Your task to perform on an android device: toggle priority inbox in the gmail app Image 0: 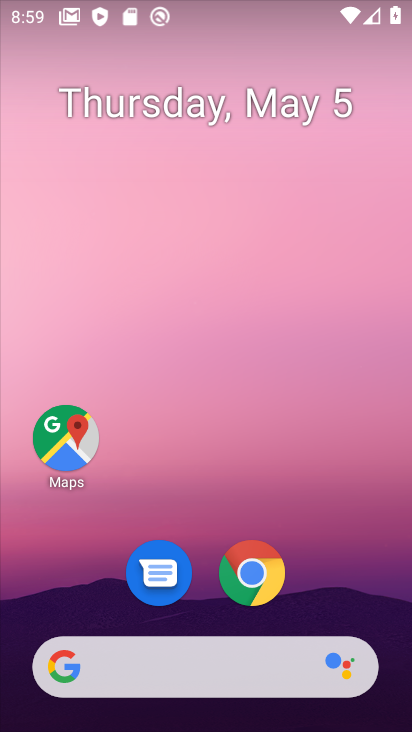
Step 0: drag from (199, 628) to (218, 1)
Your task to perform on an android device: toggle priority inbox in the gmail app Image 1: 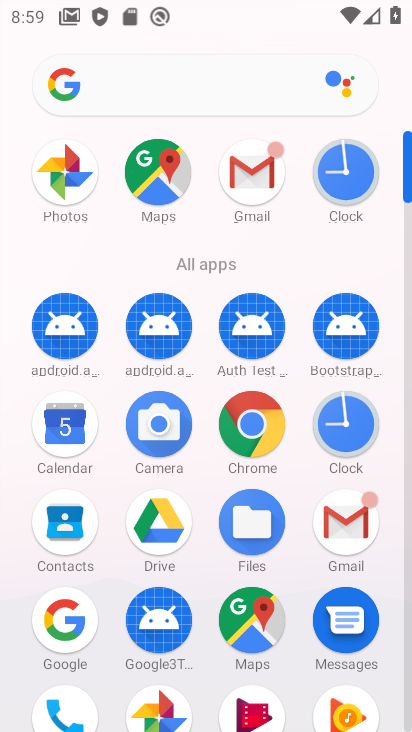
Step 1: click (251, 165)
Your task to perform on an android device: toggle priority inbox in the gmail app Image 2: 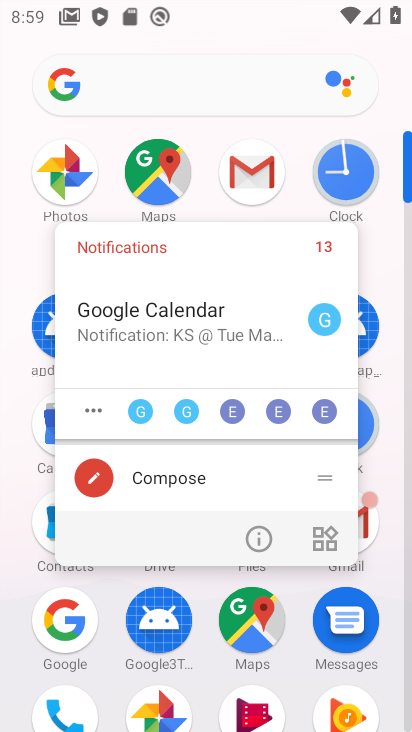
Step 2: click (254, 182)
Your task to perform on an android device: toggle priority inbox in the gmail app Image 3: 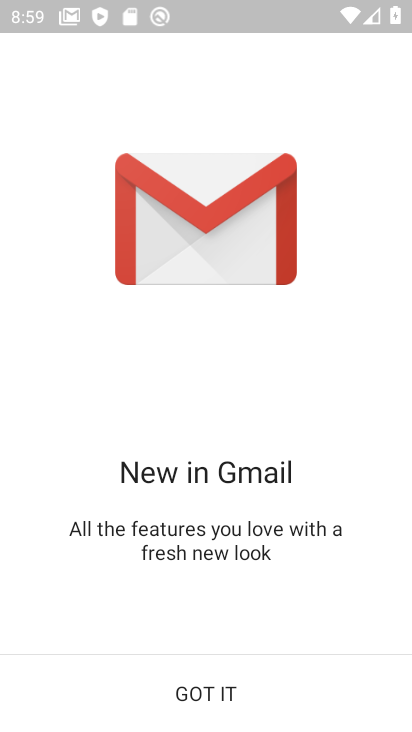
Step 3: click (194, 705)
Your task to perform on an android device: toggle priority inbox in the gmail app Image 4: 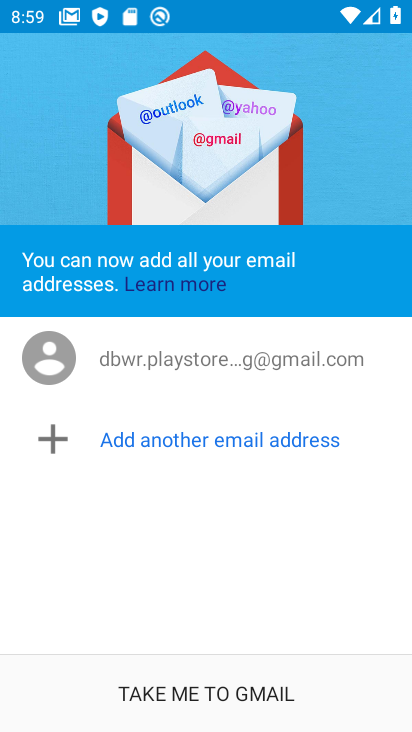
Step 4: click (192, 721)
Your task to perform on an android device: toggle priority inbox in the gmail app Image 5: 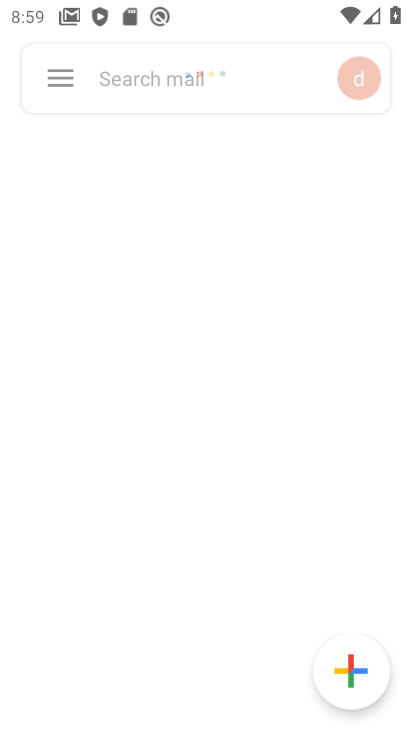
Step 5: click (59, 74)
Your task to perform on an android device: toggle priority inbox in the gmail app Image 6: 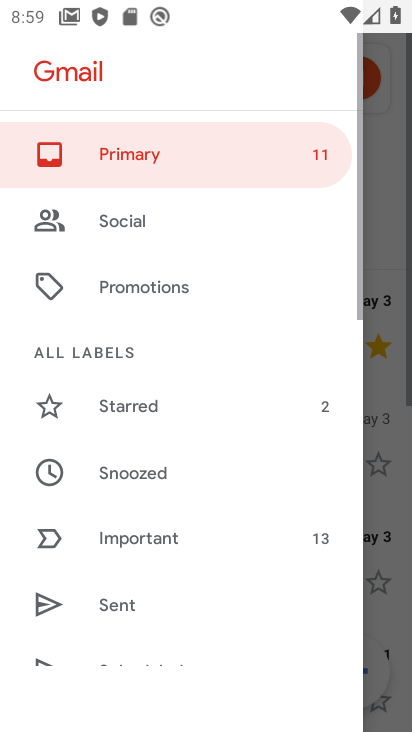
Step 6: drag from (123, 656) to (221, 104)
Your task to perform on an android device: toggle priority inbox in the gmail app Image 7: 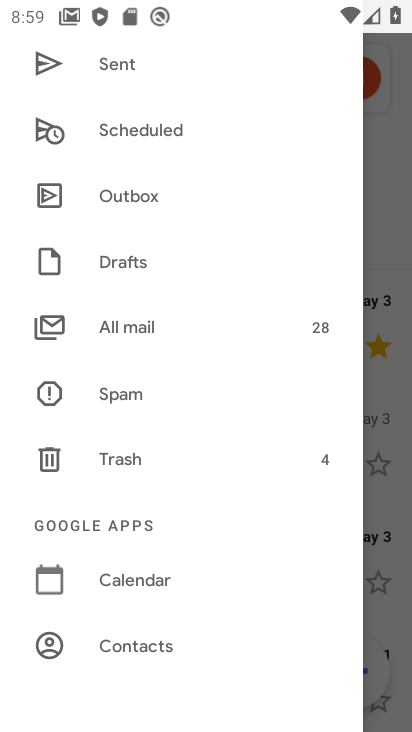
Step 7: drag from (138, 604) to (301, 22)
Your task to perform on an android device: toggle priority inbox in the gmail app Image 8: 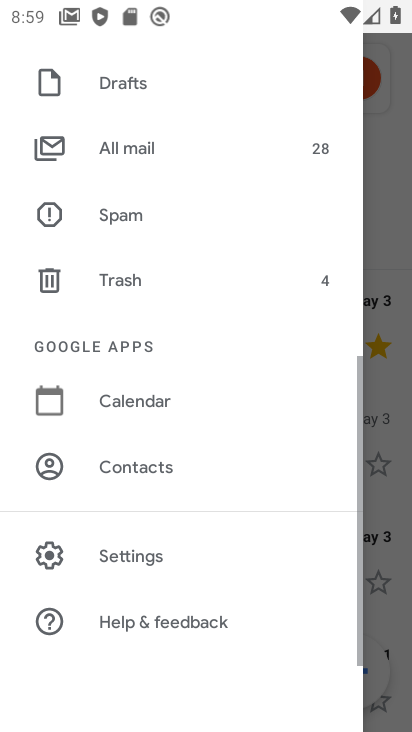
Step 8: click (145, 556)
Your task to perform on an android device: toggle priority inbox in the gmail app Image 9: 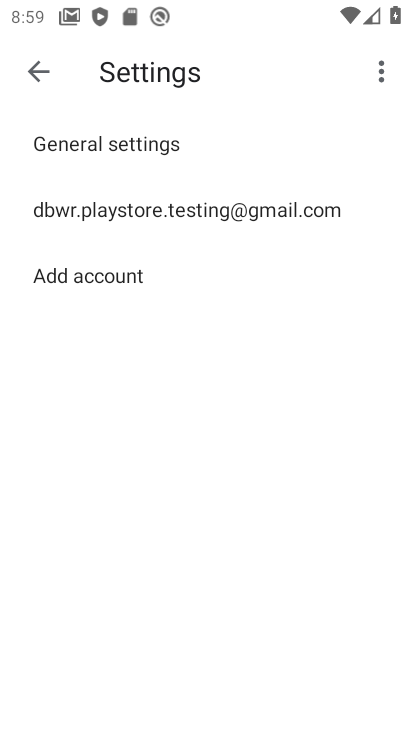
Step 9: click (147, 214)
Your task to perform on an android device: toggle priority inbox in the gmail app Image 10: 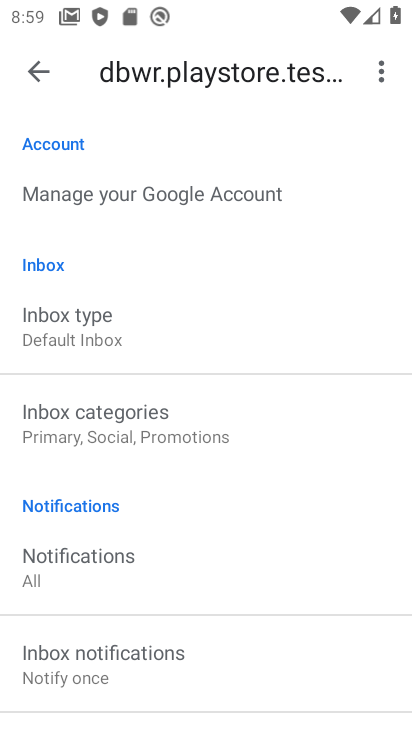
Step 10: click (110, 336)
Your task to perform on an android device: toggle priority inbox in the gmail app Image 11: 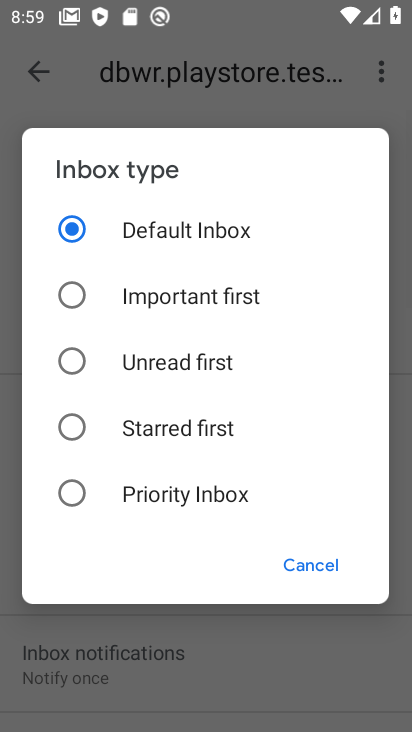
Step 11: click (80, 483)
Your task to perform on an android device: toggle priority inbox in the gmail app Image 12: 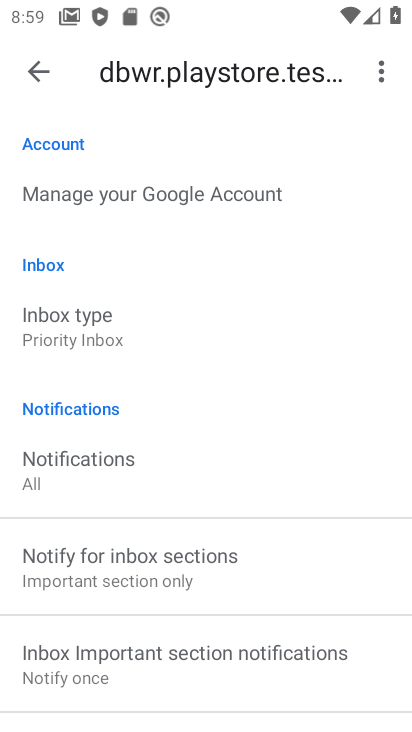
Step 12: task complete